Your task to perform on an android device: toggle translation in the chrome app Image 0: 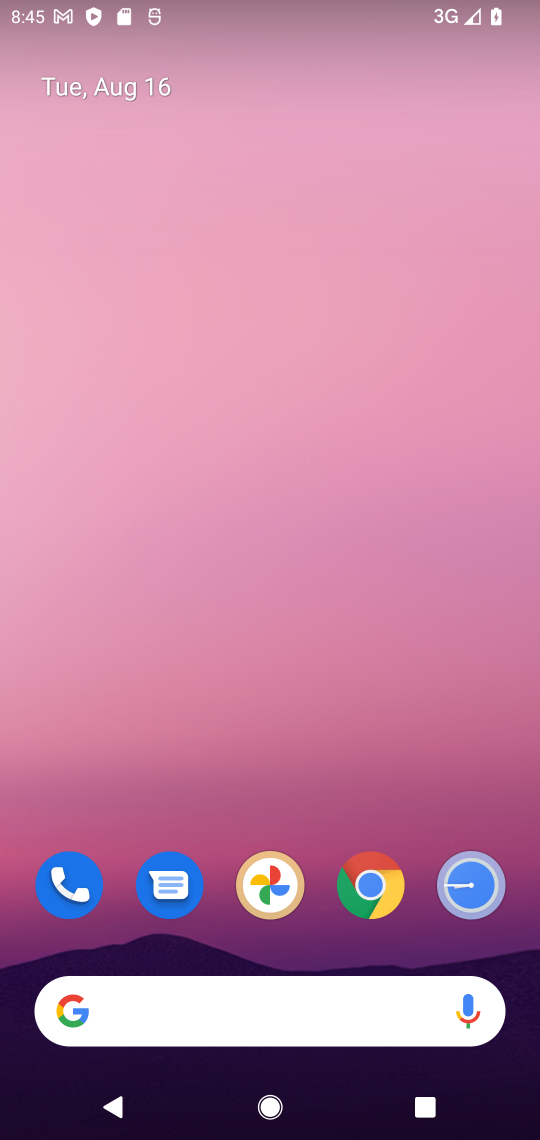
Step 0: click (372, 895)
Your task to perform on an android device: toggle translation in the chrome app Image 1: 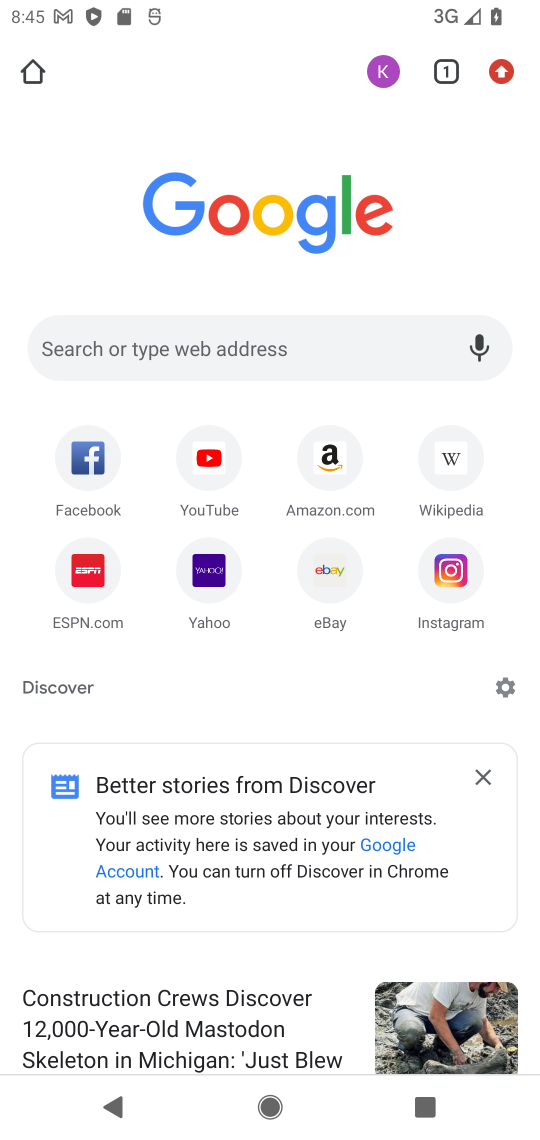
Step 1: click (501, 69)
Your task to perform on an android device: toggle translation in the chrome app Image 2: 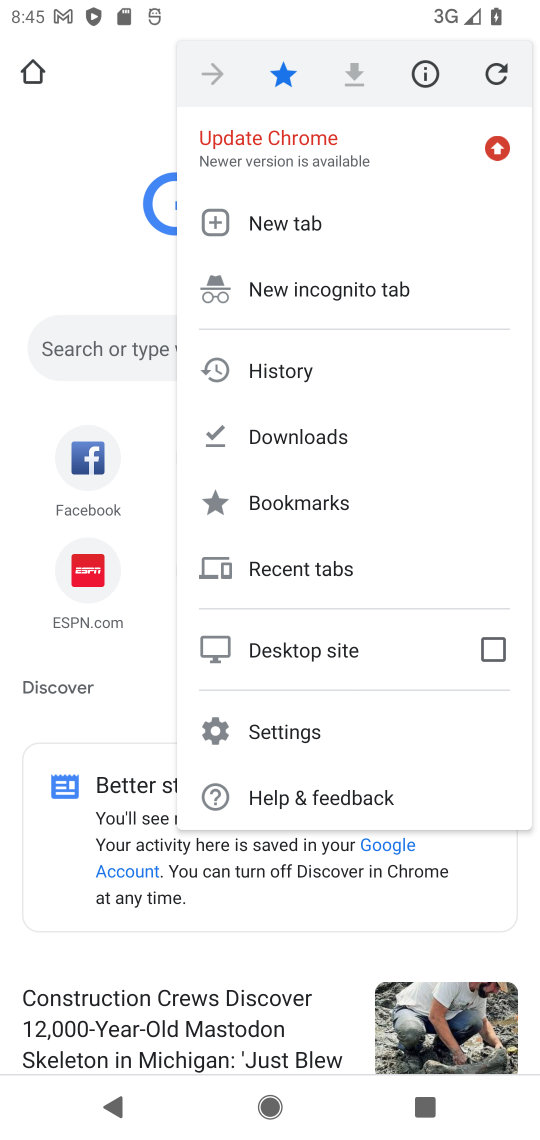
Step 2: click (242, 728)
Your task to perform on an android device: toggle translation in the chrome app Image 3: 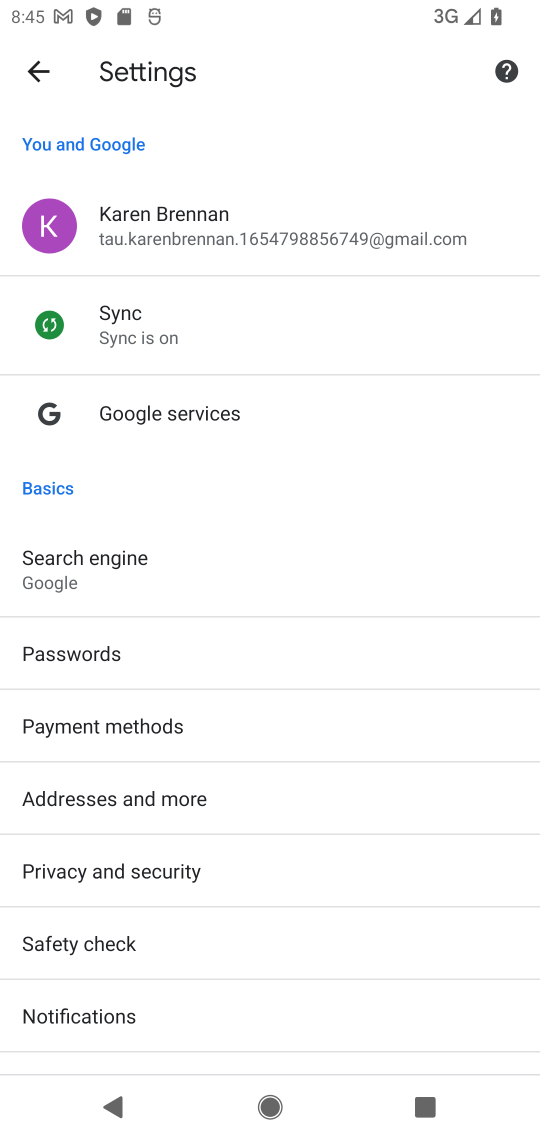
Step 3: drag from (236, 958) to (236, 327)
Your task to perform on an android device: toggle translation in the chrome app Image 4: 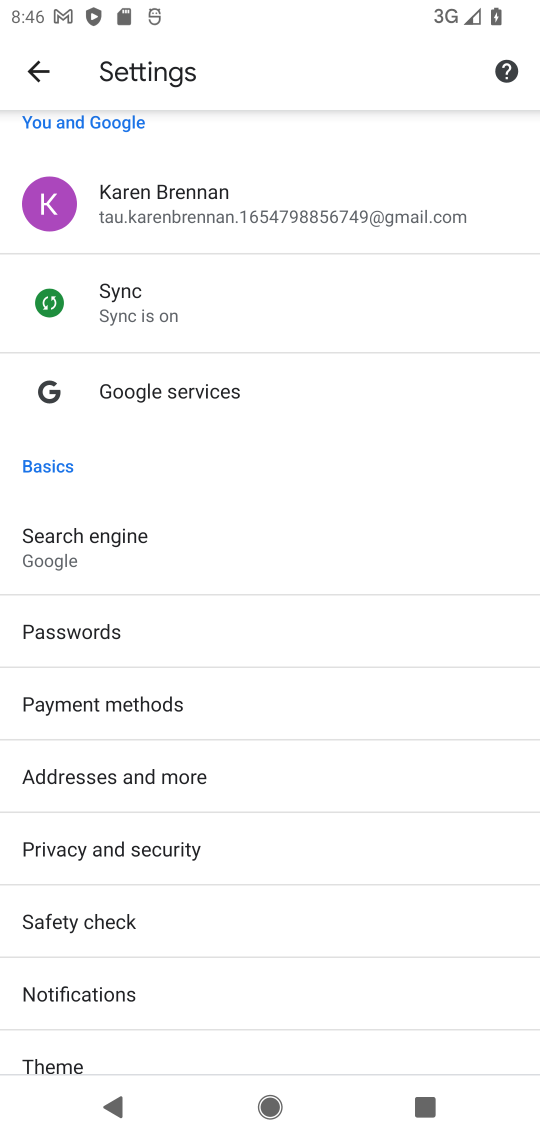
Step 4: drag from (232, 1005) to (135, 510)
Your task to perform on an android device: toggle translation in the chrome app Image 5: 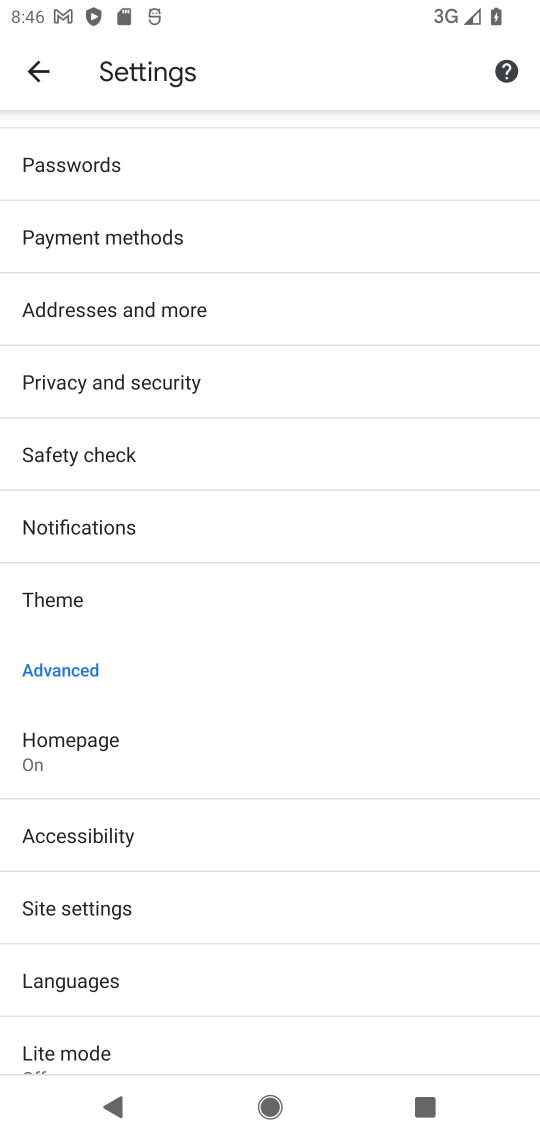
Step 5: click (106, 982)
Your task to perform on an android device: toggle translation in the chrome app Image 6: 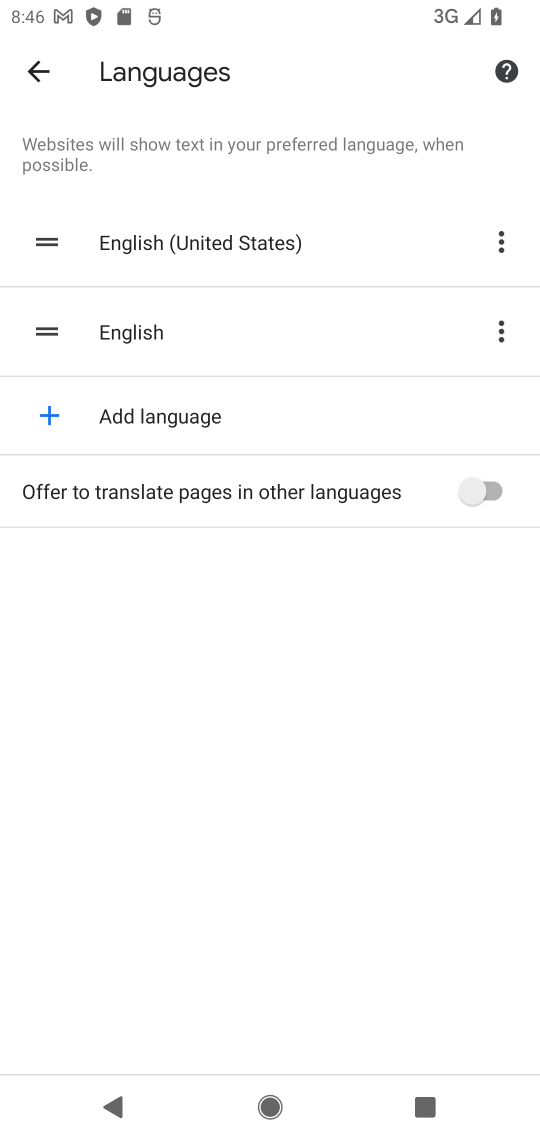
Step 6: click (506, 485)
Your task to perform on an android device: toggle translation in the chrome app Image 7: 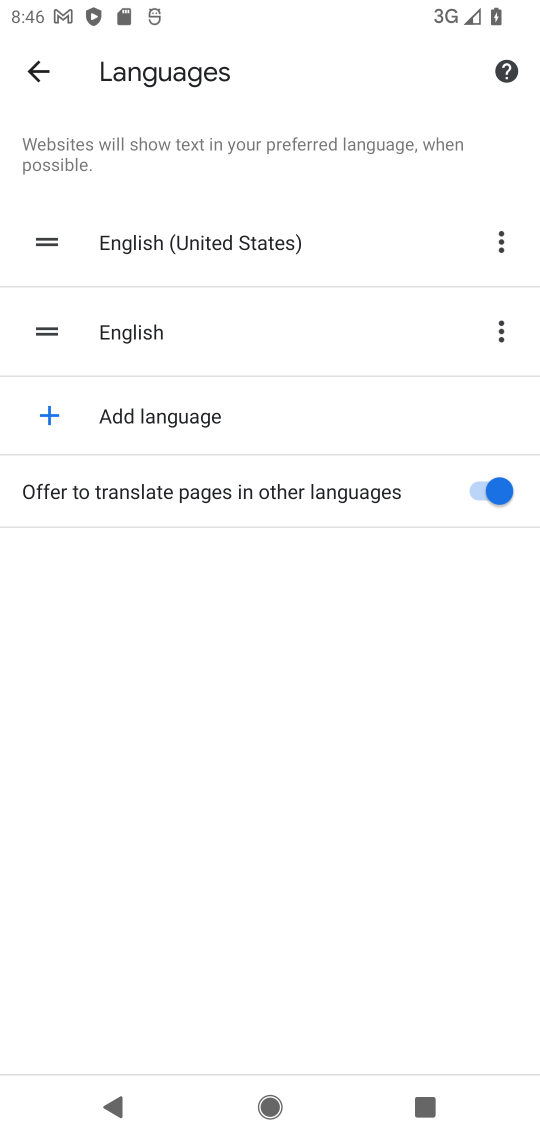
Step 7: task complete